Your task to perform on an android device: Go to battery settings Image 0: 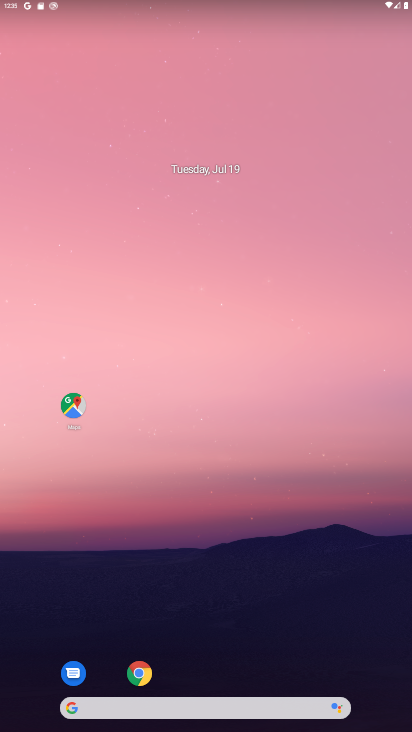
Step 0: drag from (42, 724) to (133, 135)
Your task to perform on an android device: Go to battery settings Image 1: 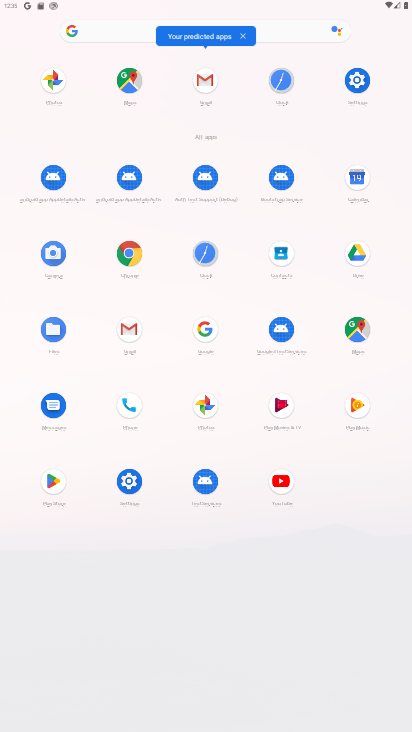
Step 1: click (363, 90)
Your task to perform on an android device: Go to battery settings Image 2: 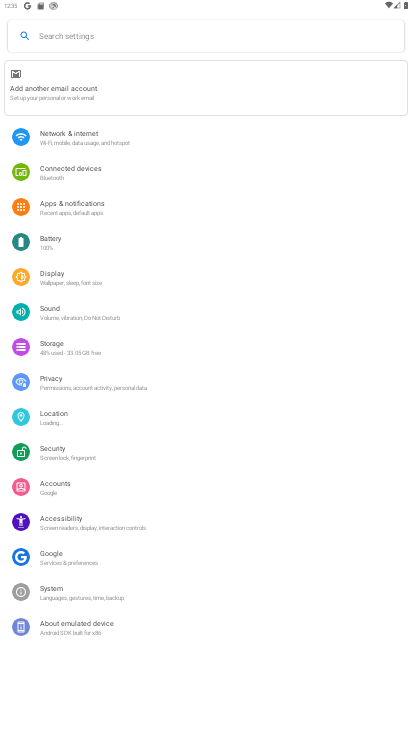
Step 2: click (46, 247)
Your task to perform on an android device: Go to battery settings Image 3: 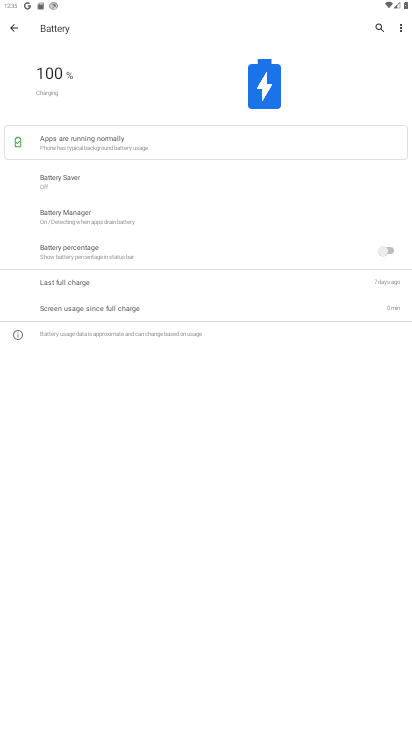
Step 3: task complete